Your task to perform on an android device: change the clock display to show seconds Image 0: 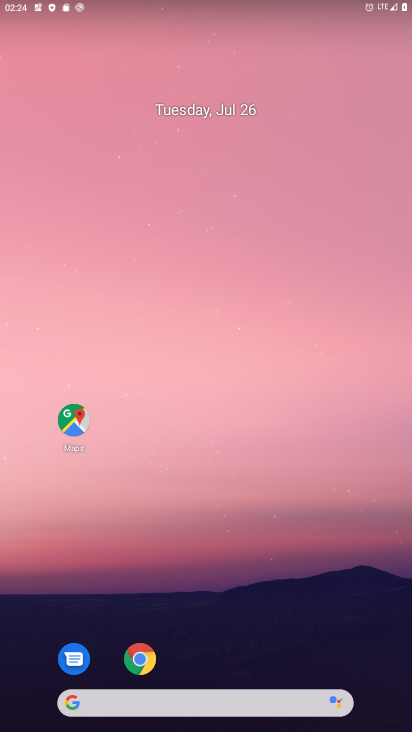
Step 0: drag from (272, 578) to (200, 15)
Your task to perform on an android device: change the clock display to show seconds Image 1: 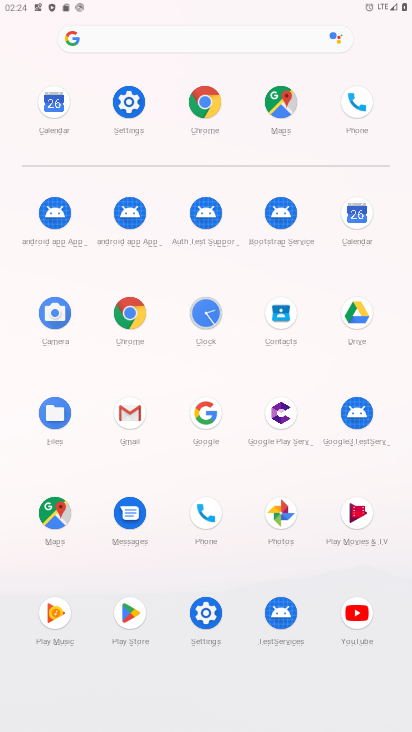
Step 1: click (209, 306)
Your task to perform on an android device: change the clock display to show seconds Image 2: 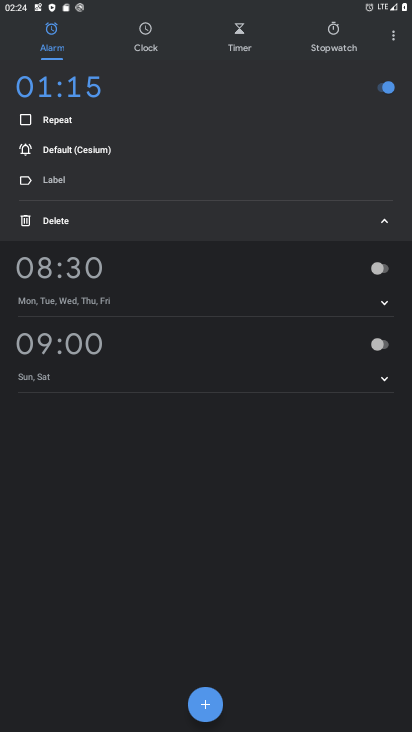
Step 2: click (394, 36)
Your task to perform on an android device: change the clock display to show seconds Image 3: 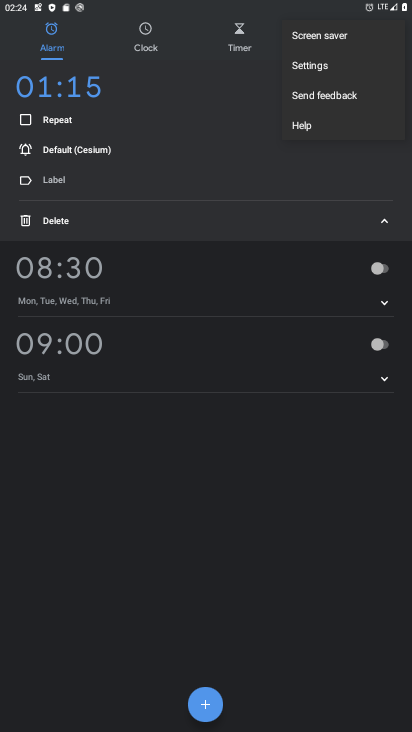
Step 3: click (317, 63)
Your task to perform on an android device: change the clock display to show seconds Image 4: 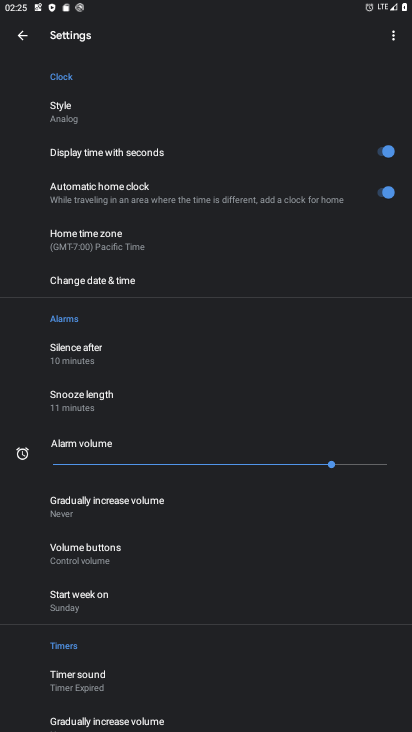
Step 4: task complete